Your task to perform on an android device: Search for seafood restaurants on Google Maps Image 0: 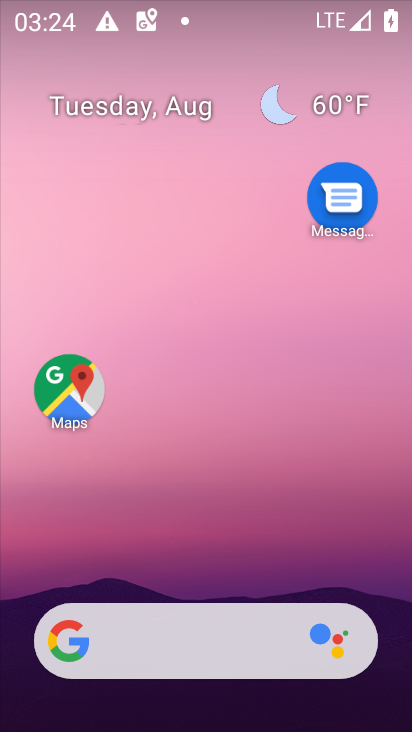
Step 0: drag from (261, 586) to (177, 0)
Your task to perform on an android device: Search for seafood restaurants on Google Maps Image 1: 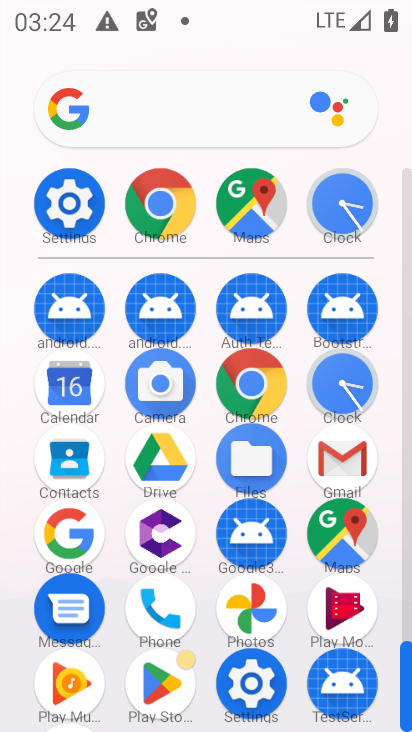
Step 1: click (321, 532)
Your task to perform on an android device: Search for seafood restaurants on Google Maps Image 2: 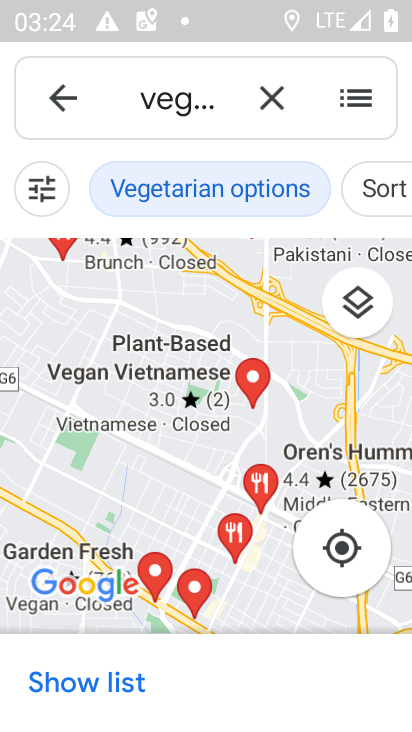
Step 2: click (277, 92)
Your task to perform on an android device: Search for seafood restaurants on Google Maps Image 3: 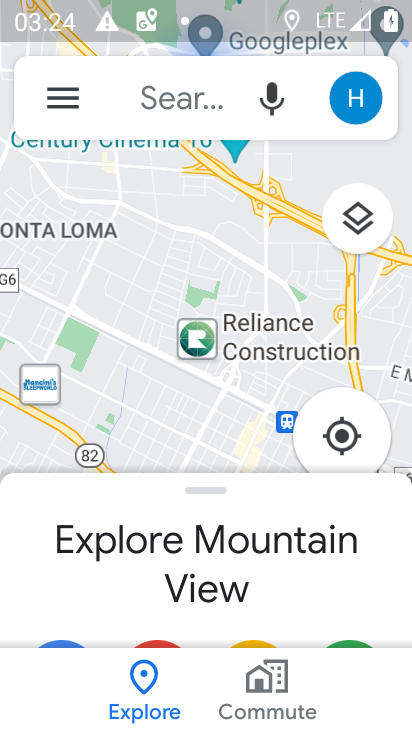
Step 3: click (135, 102)
Your task to perform on an android device: Search for seafood restaurants on Google Maps Image 4: 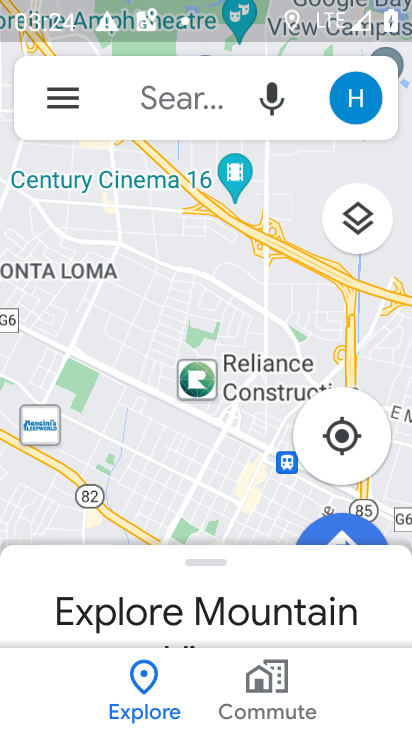
Step 4: click (135, 102)
Your task to perform on an android device: Search for seafood restaurants on Google Maps Image 5: 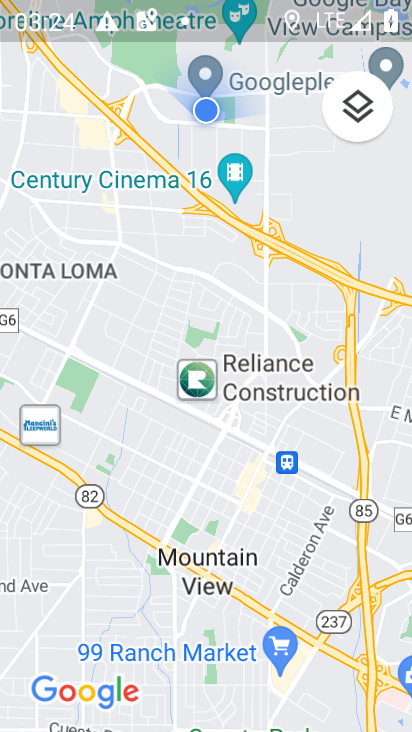
Step 5: task complete